Your task to perform on an android device: Toggle the flashlight Image 0: 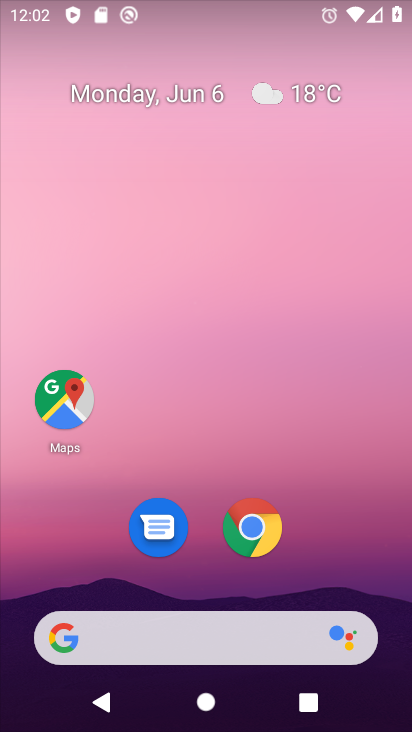
Step 0: drag from (217, 586) to (306, 10)
Your task to perform on an android device: Toggle the flashlight Image 1: 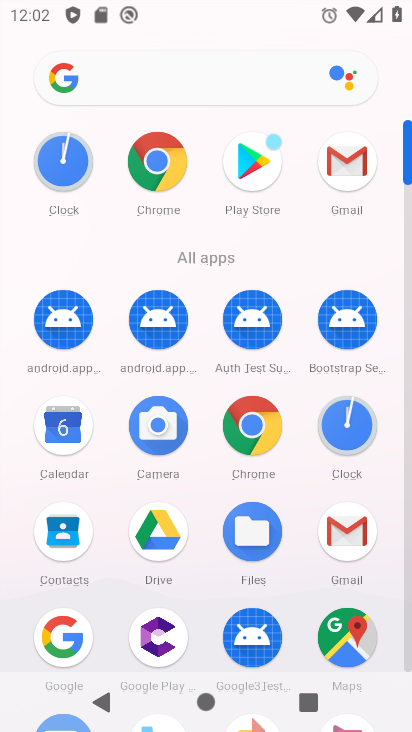
Step 1: drag from (201, 542) to (221, 29)
Your task to perform on an android device: Toggle the flashlight Image 2: 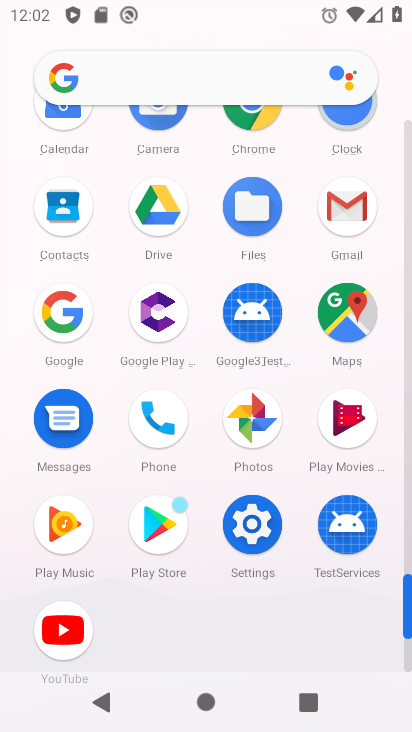
Step 2: click (258, 519)
Your task to perform on an android device: Toggle the flashlight Image 3: 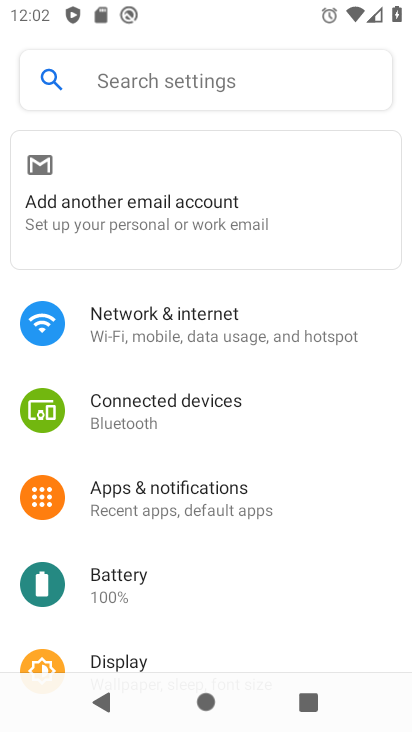
Step 3: task complete